Your task to perform on an android device: Open accessibility settings Image 0: 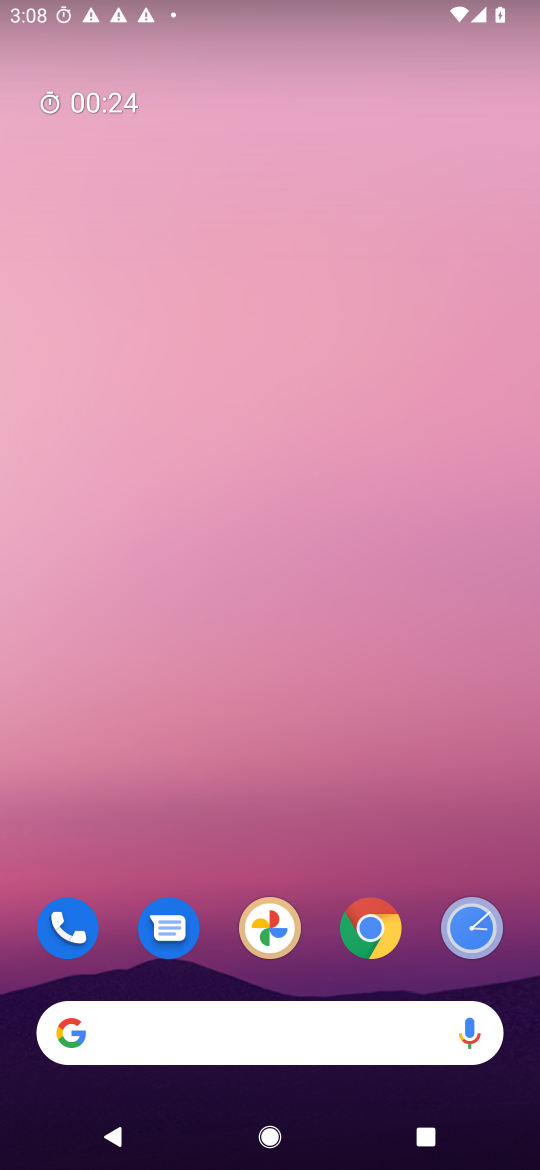
Step 0: drag from (375, 857) to (305, 167)
Your task to perform on an android device: Open accessibility settings Image 1: 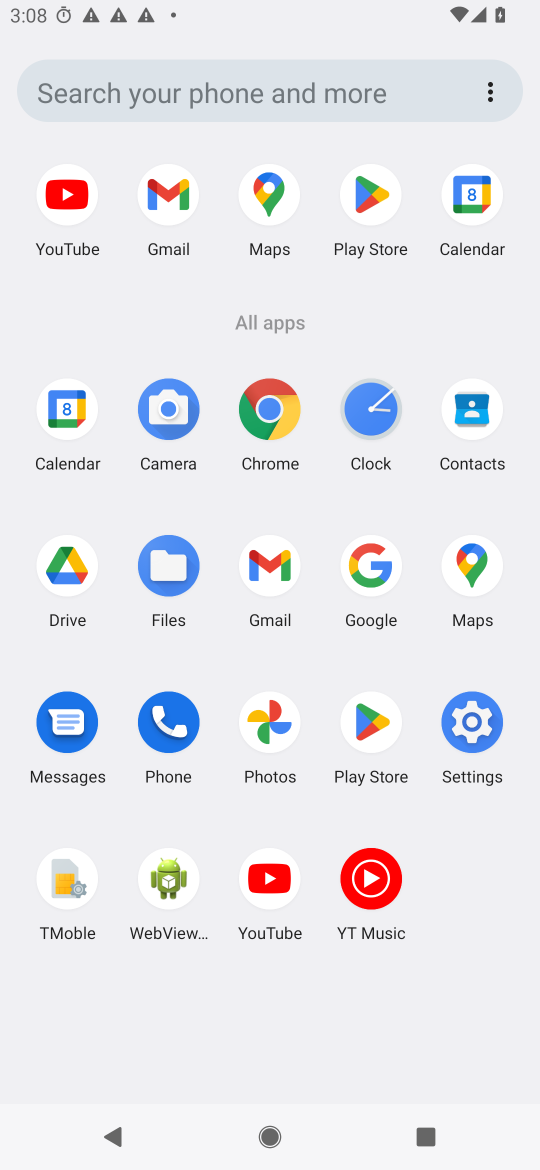
Step 1: click (471, 729)
Your task to perform on an android device: Open accessibility settings Image 2: 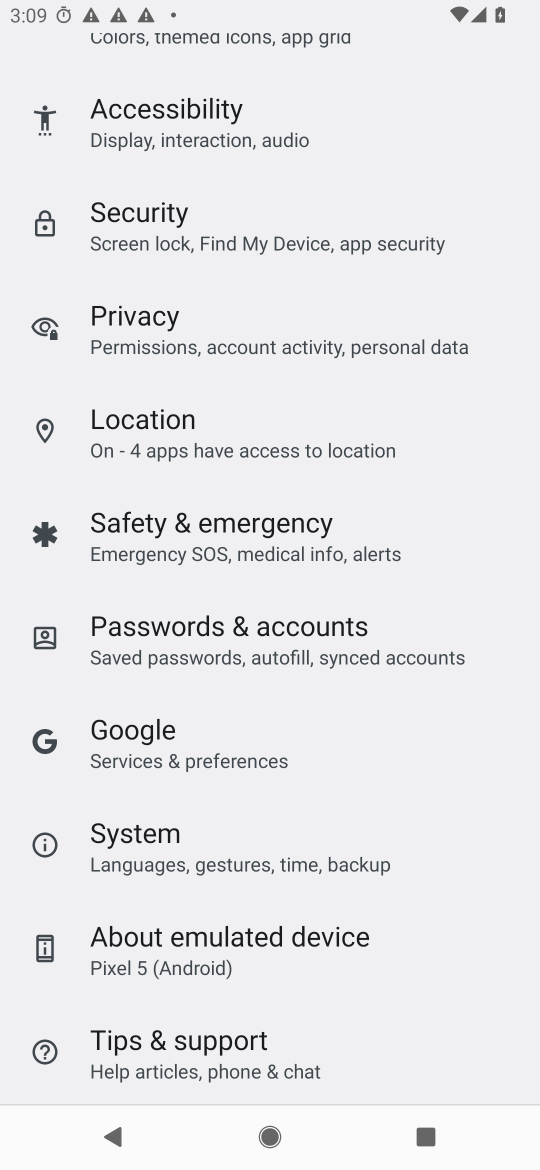
Step 2: click (167, 140)
Your task to perform on an android device: Open accessibility settings Image 3: 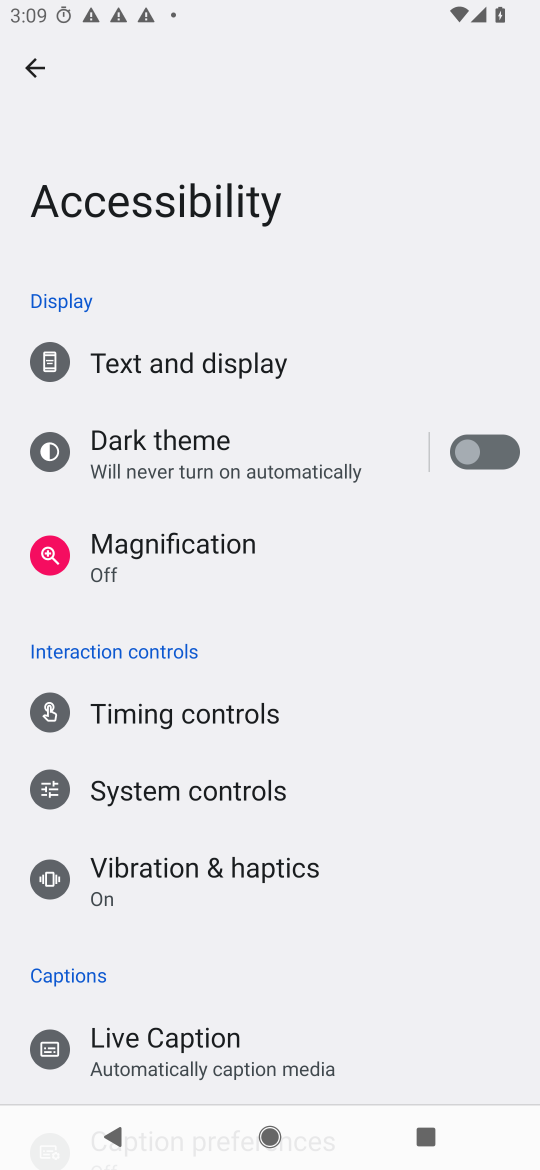
Step 3: task complete